Your task to perform on an android device: turn on notifications settings in the gmail app Image 0: 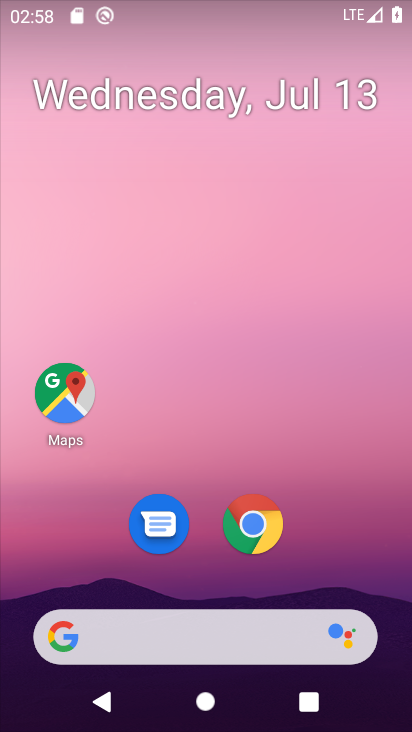
Step 0: drag from (319, 521) to (329, 33)
Your task to perform on an android device: turn on notifications settings in the gmail app Image 1: 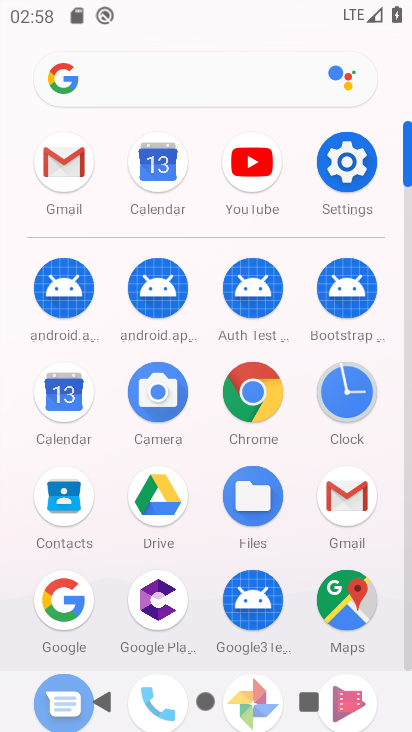
Step 1: click (74, 163)
Your task to perform on an android device: turn on notifications settings in the gmail app Image 2: 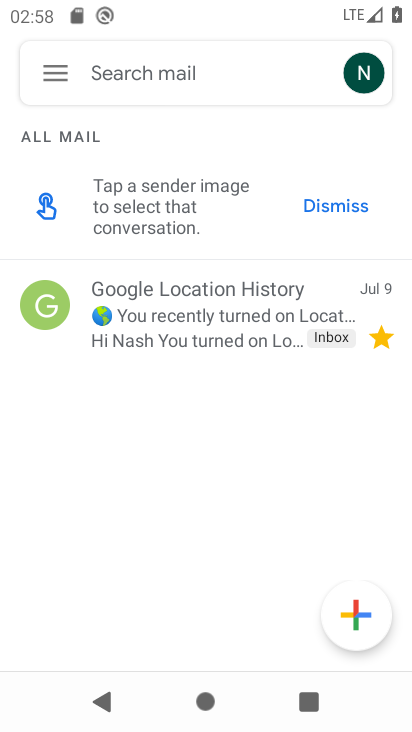
Step 2: click (60, 76)
Your task to perform on an android device: turn on notifications settings in the gmail app Image 3: 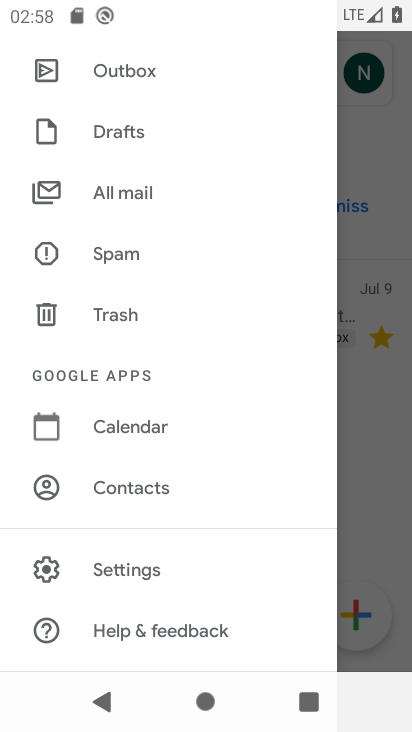
Step 3: click (152, 566)
Your task to perform on an android device: turn on notifications settings in the gmail app Image 4: 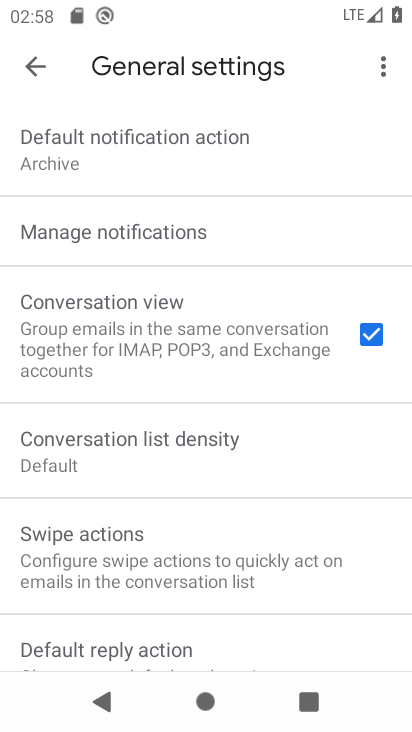
Step 4: click (169, 225)
Your task to perform on an android device: turn on notifications settings in the gmail app Image 5: 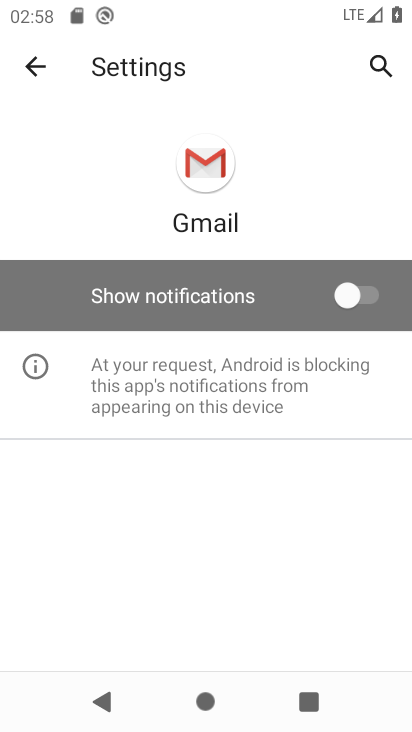
Step 5: click (348, 298)
Your task to perform on an android device: turn on notifications settings in the gmail app Image 6: 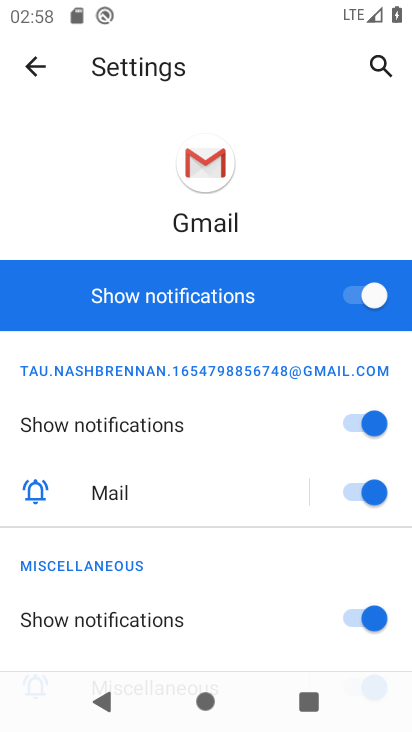
Step 6: task complete